Your task to perform on an android device: toggle notification dots Image 0: 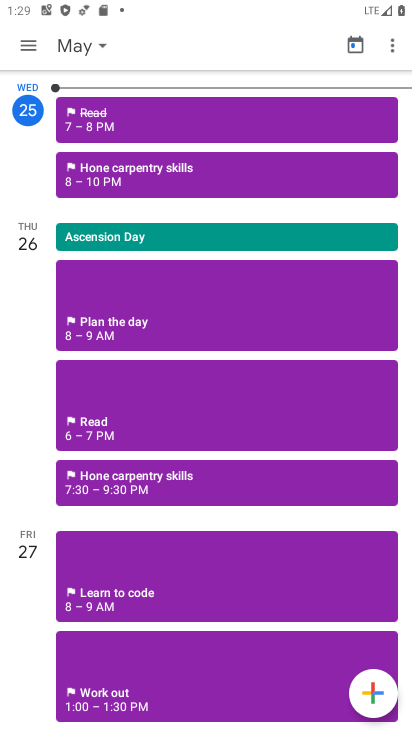
Step 0: press home button
Your task to perform on an android device: toggle notification dots Image 1: 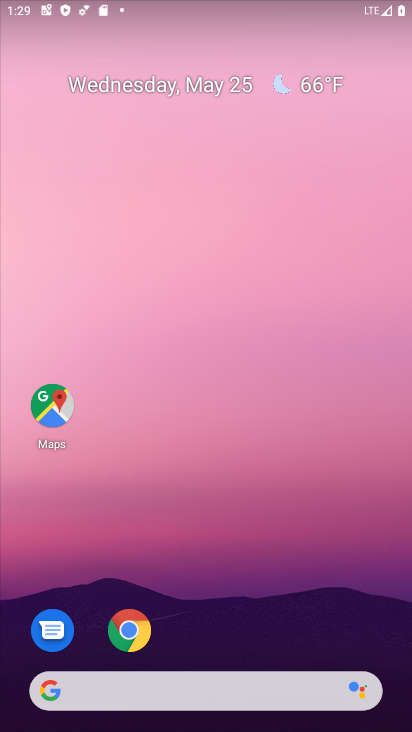
Step 1: drag from (219, 644) to (233, 130)
Your task to perform on an android device: toggle notification dots Image 2: 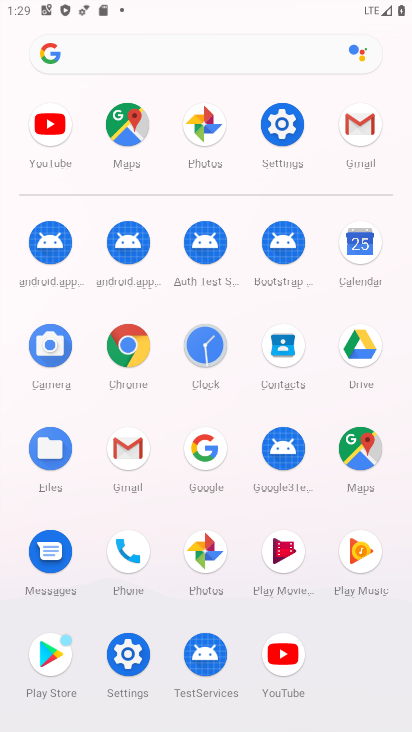
Step 2: click (124, 646)
Your task to perform on an android device: toggle notification dots Image 3: 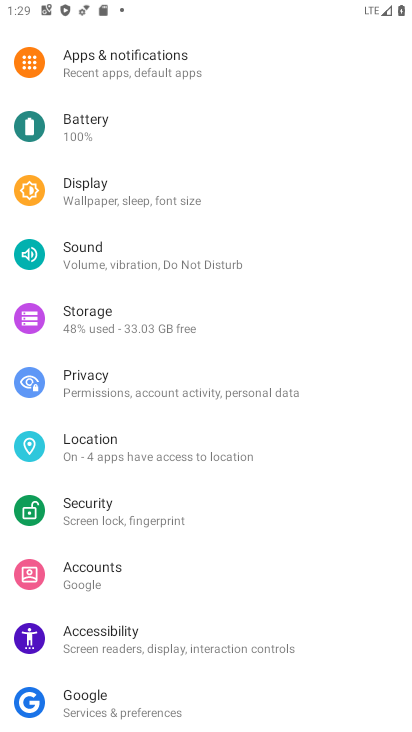
Step 3: click (118, 67)
Your task to perform on an android device: toggle notification dots Image 4: 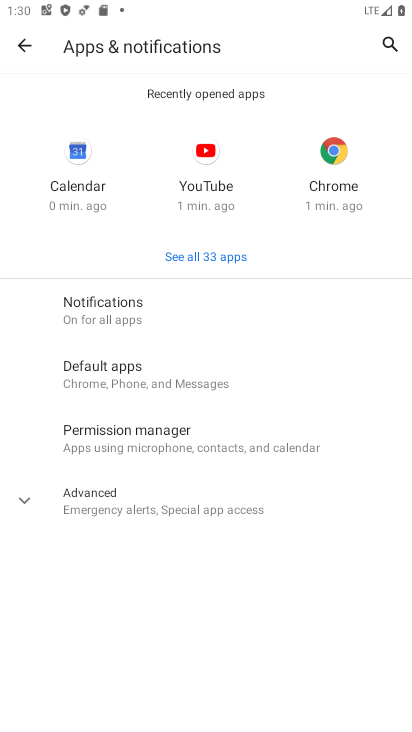
Step 4: click (148, 309)
Your task to perform on an android device: toggle notification dots Image 5: 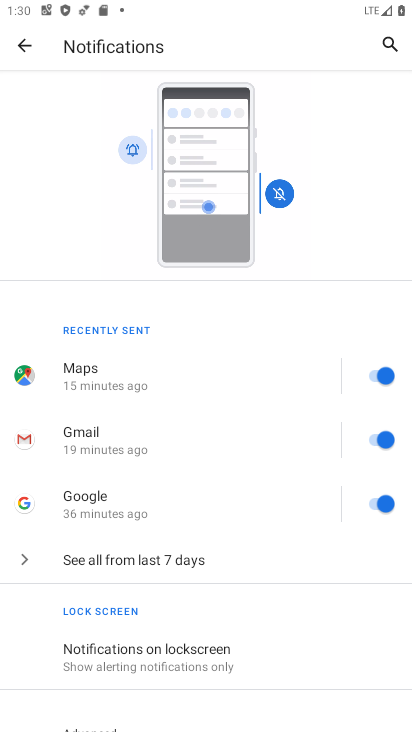
Step 5: drag from (179, 660) to (204, 290)
Your task to perform on an android device: toggle notification dots Image 6: 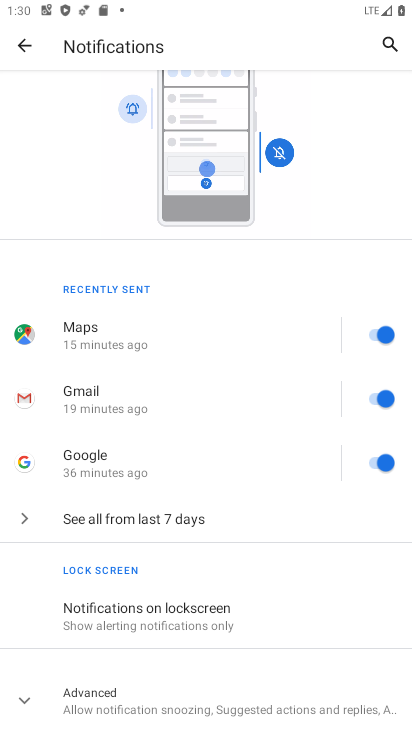
Step 6: click (79, 689)
Your task to perform on an android device: toggle notification dots Image 7: 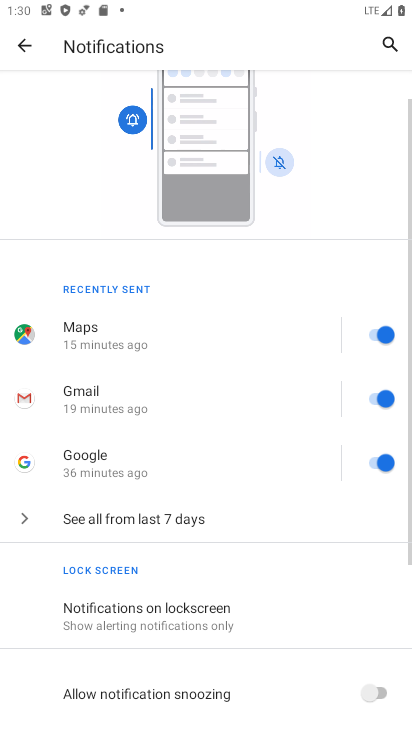
Step 7: drag from (159, 671) to (183, 305)
Your task to perform on an android device: toggle notification dots Image 8: 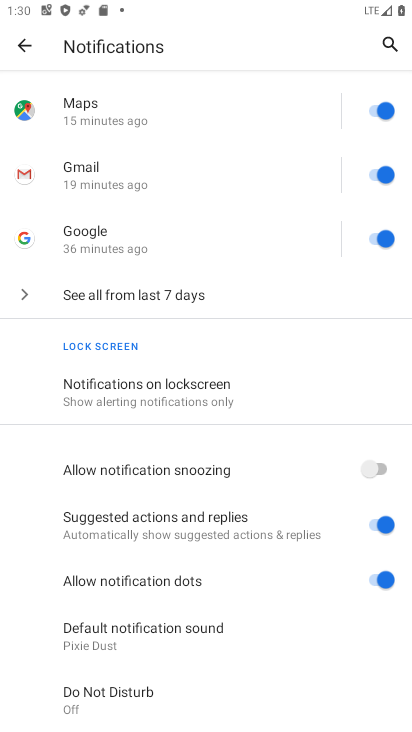
Step 8: click (371, 577)
Your task to perform on an android device: toggle notification dots Image 9: 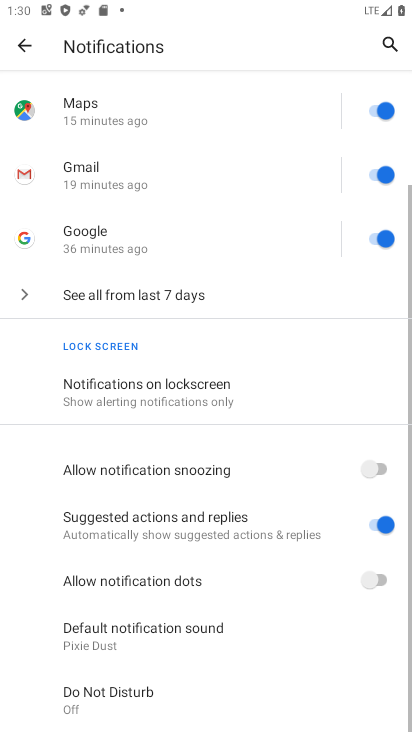
Step 9: task complete